Your task to perform on an android device: Open settings on Google Maps Image 0: 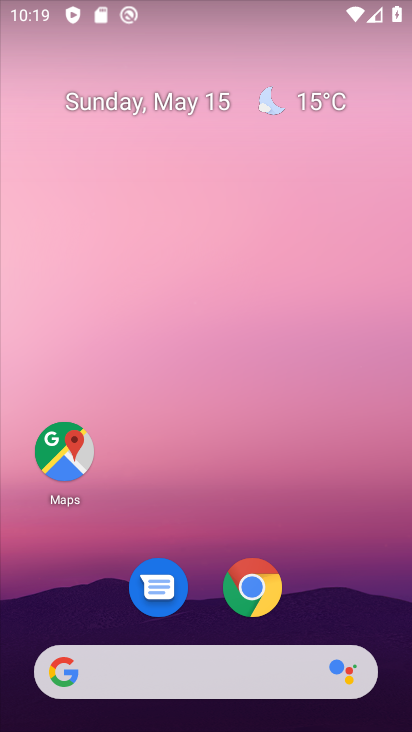
Step 0: click (82, 465)
Your task to perform on an android device: Open settings on Google Maps Image 1: 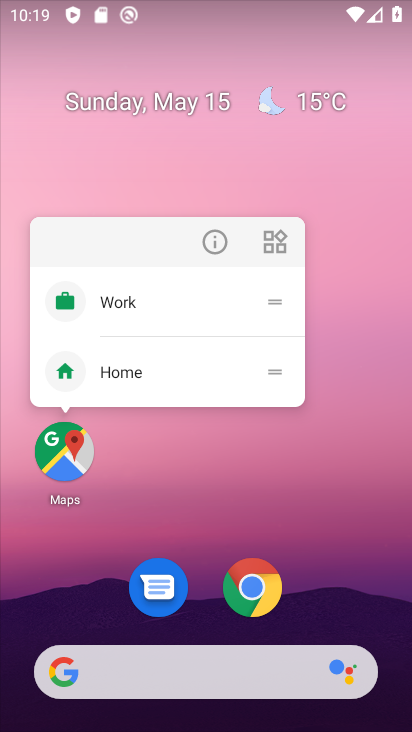
Step 1: click (64, 447)
Your task to perform on an android device: Open settings on Google Maps Image 2: 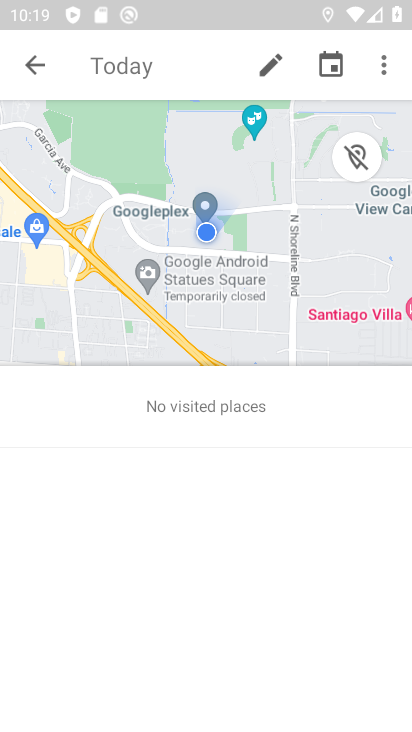
Step 2: click (43, 70)
Your task to perform on an android device: Open settings on Google Maps Image 3: 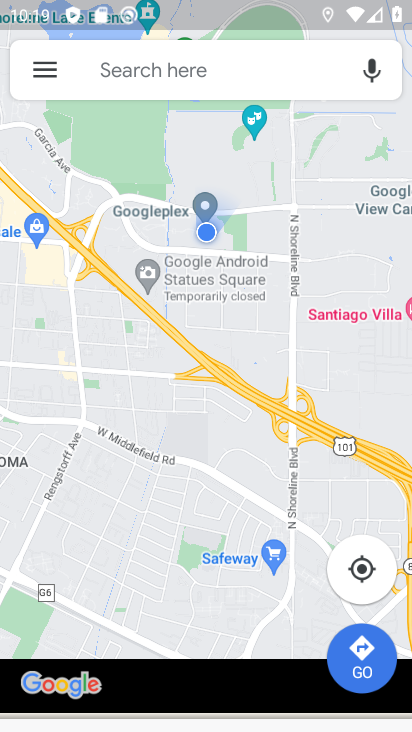
Step 3: click (43, 70)
Your task to perform on an android device: Open settings on Google Maps Image 4: 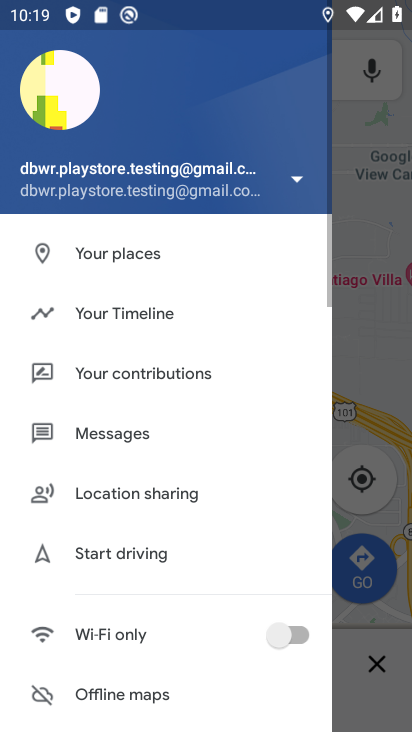
Step 4: drag from (110, 598) to (230, 258)
Your task to perform on an android device: Open settings on Google Maps Image 5: 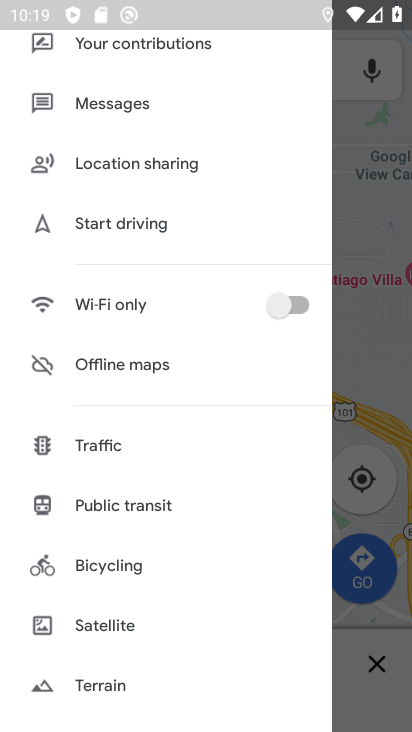
Step 5: drag from (108, 686) to (185, 299)
Your task to perform on an android device: Open settings on Google Maps Image 6: 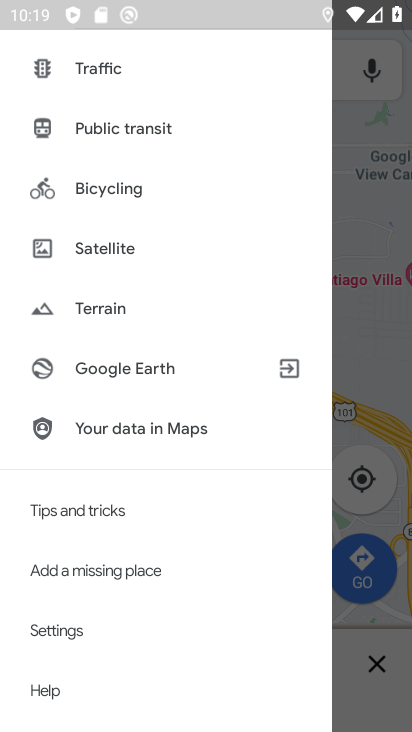
Step 6: click (115, 630)
Your task to perform on an android device: Open settings on Google Maps Image 7: 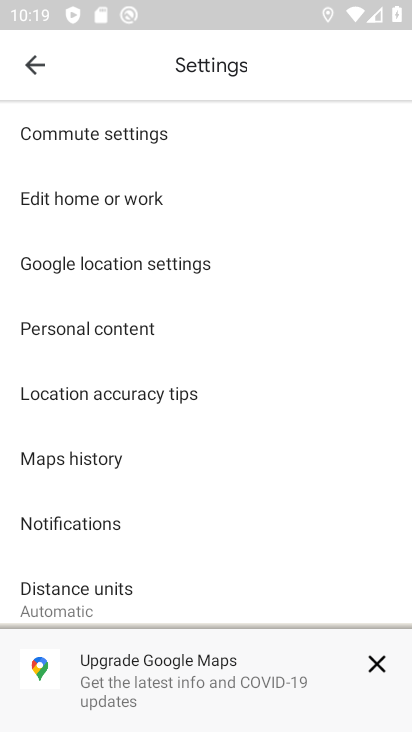
Step 7: task complete